Your task to perform on an android device: Check the weather Image 0: 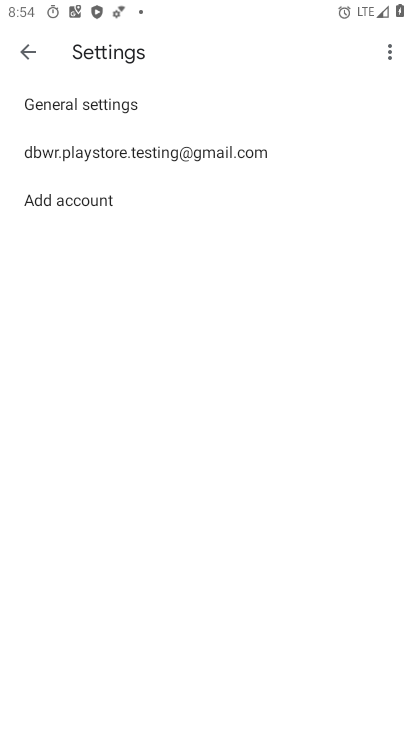
Step 0: press home button
Your task to perform on an android device: Check the weather Image 1: 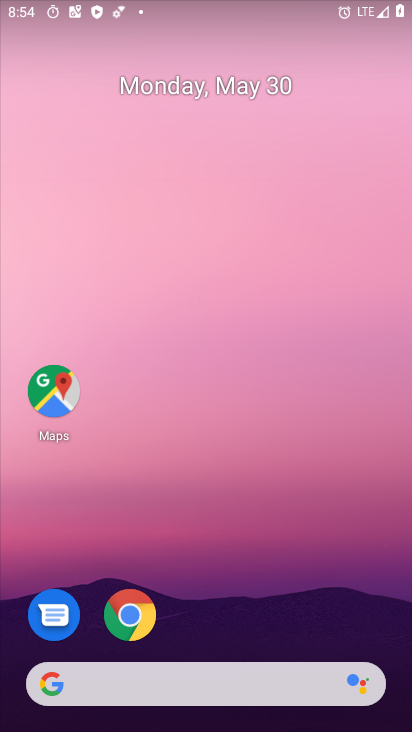
Step 1: click (55, 685)
Your task to perform on an android device: Check the weather Image 2: 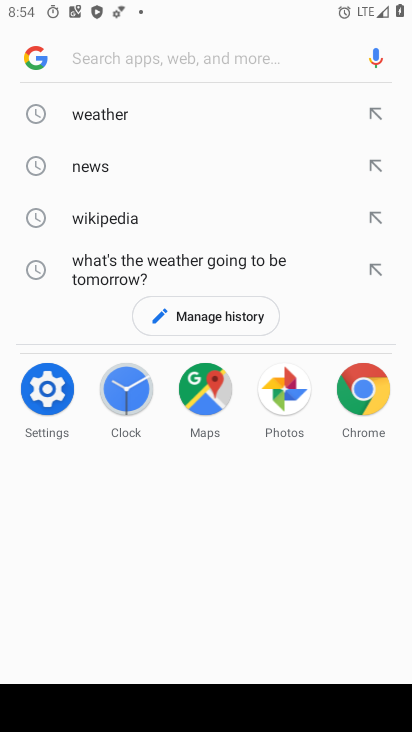
Step 2: click (29, 56)
Your task to perform on an android device: Check the weather Image 3: 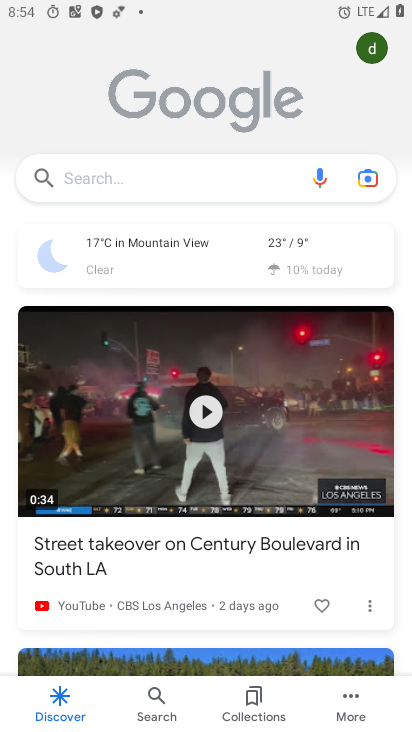
Step 3: click (195, 266)
Your task to perform on an android device: Check the weather Image 4: 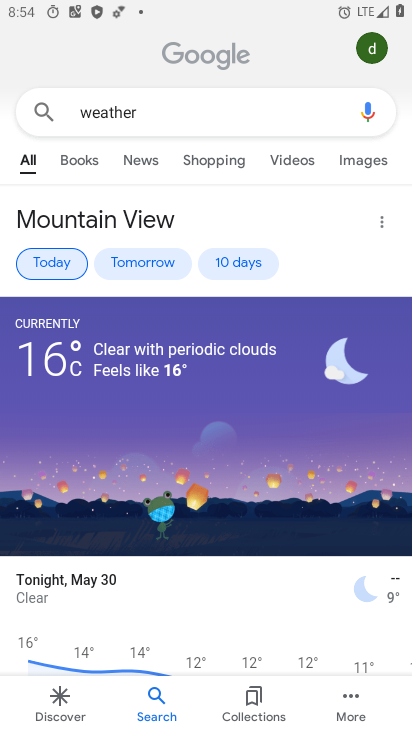
Step 4: task complete